Your task to perform on an android device: open device folders in google photos Image 0: 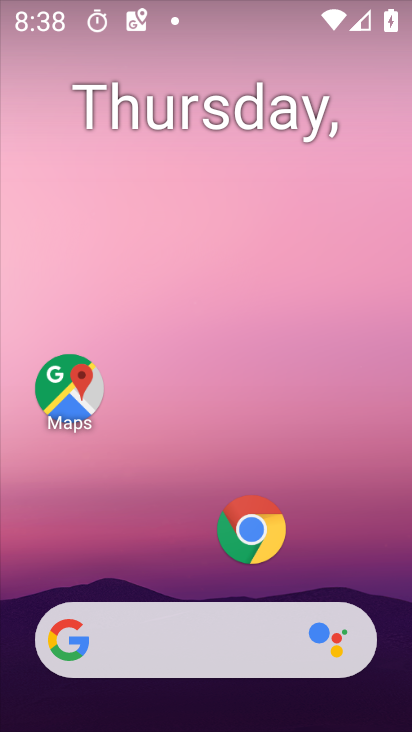
Step 0: press home button
Your task to perform on an android device: open device folders in google photos Image 1: 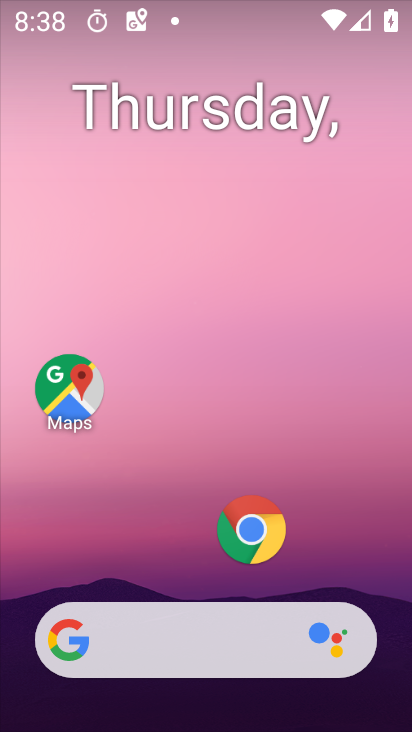
Step 1: drag from (203, 585) to (221, 70)
Your task to perform on an android device: open device folders in google photos Image 2: 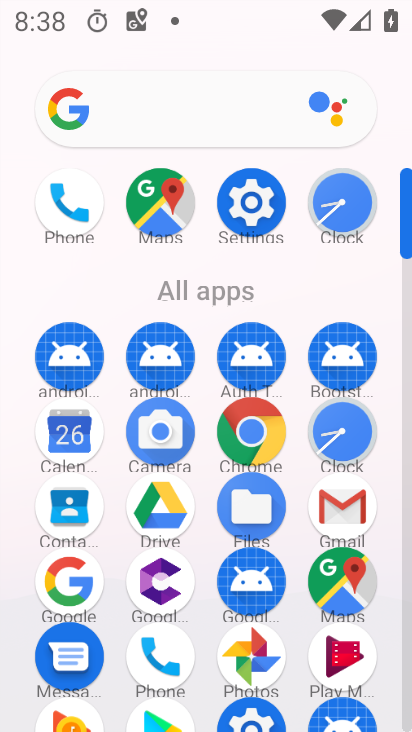
Step 2: click (250, 647)
Your task to perform on an android device: open device folders in google photos Image 3: 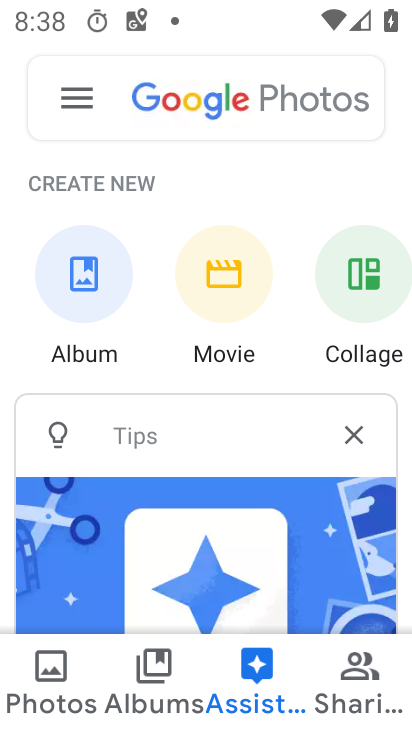
Step 3: click (205, 89)
Your task to perform on an android device: open device folders in google photos Image 4: 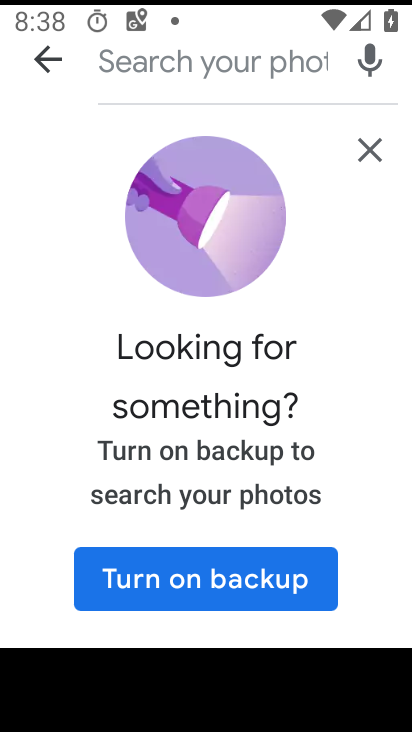
Step 4: click (368, 148)
Your task to perform on an android device: open device folders in google photos Image 5: 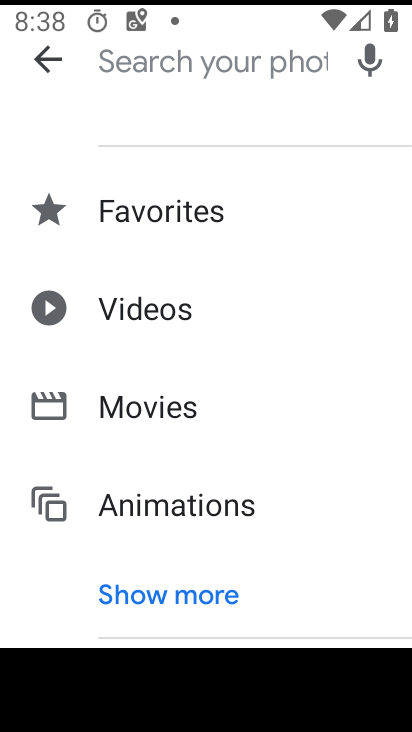
Step 5: click (151, 597)
Your task to perform on an android device: open device folders in google photos Image 6: 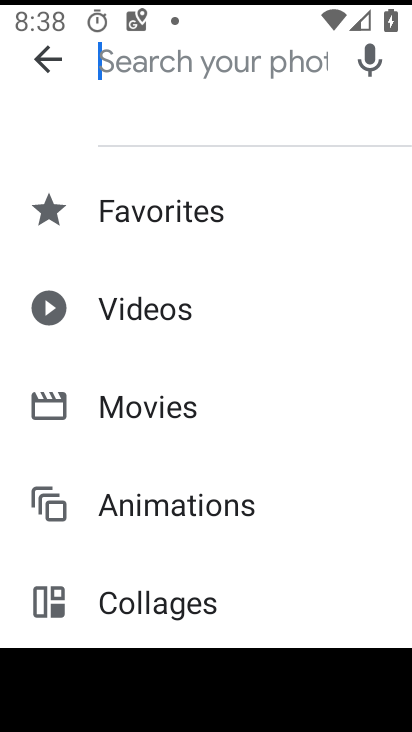
Step 6: drag from (226, 597) to (252, 238)
Your task to perform on an android device: open device folders in google photos Image 7: 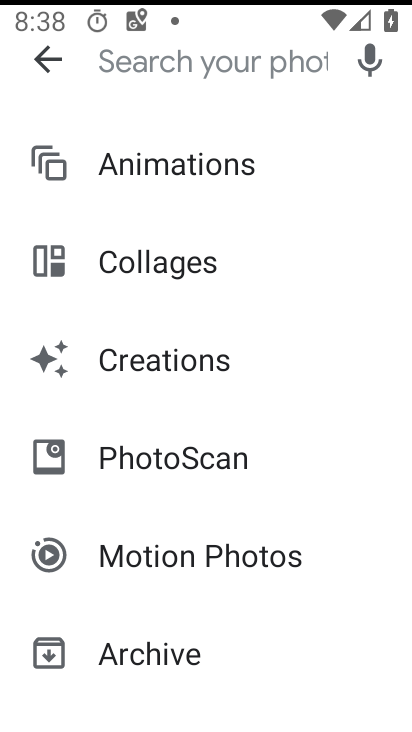
Step 7: click (47, 64)
Your task to perform on an android device: open device folders in google photos Image 8: 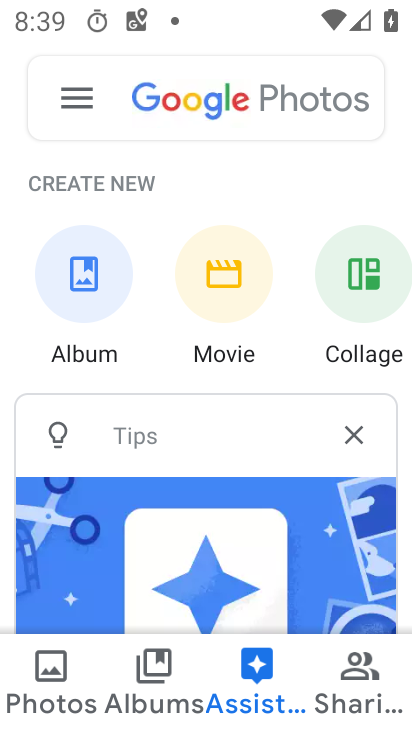
Step 8: click (79, 100)
Your task to perform on an android device: open device folders in google photos Image 9: 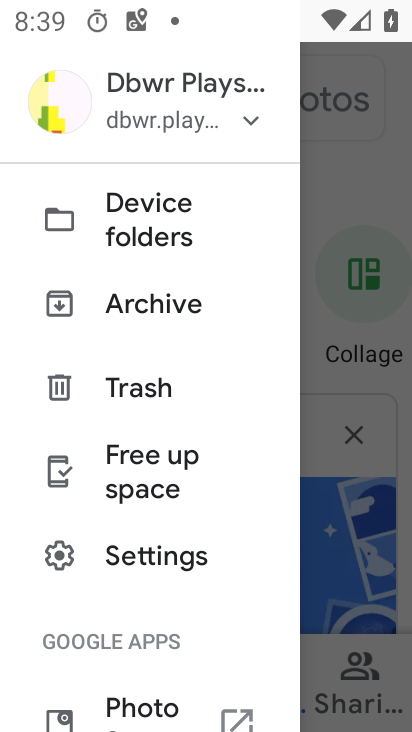
Step 9: click (134, 219)
Your task to perform on an android device: open device folders in google photos Image 10: 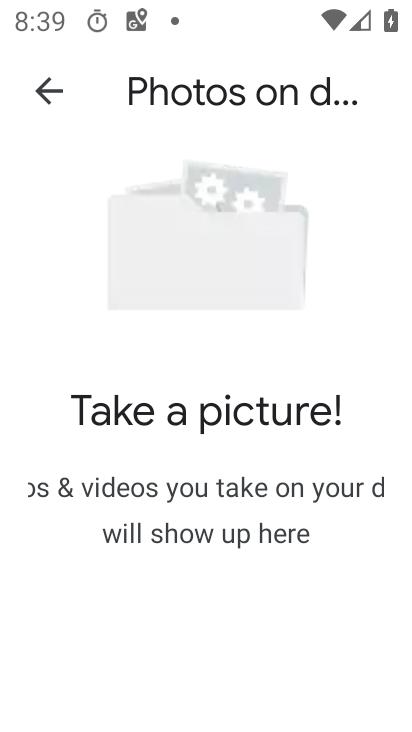
Step 10: task complete